Your task to perform on an android device: set an alarm Image 0: 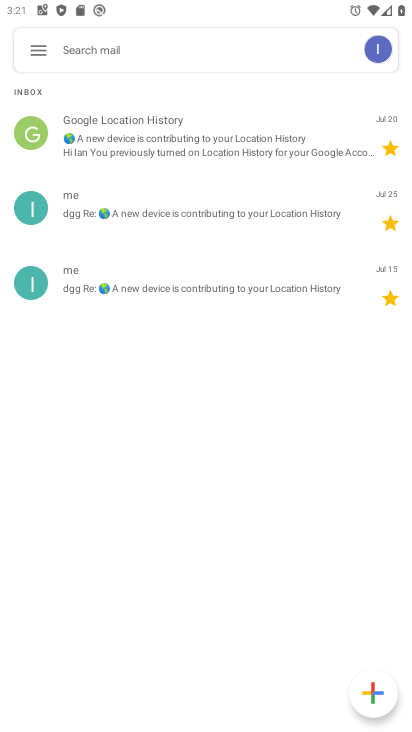
Step 0: press home button
Your task to perform on an android device: set an alarm Image 1: 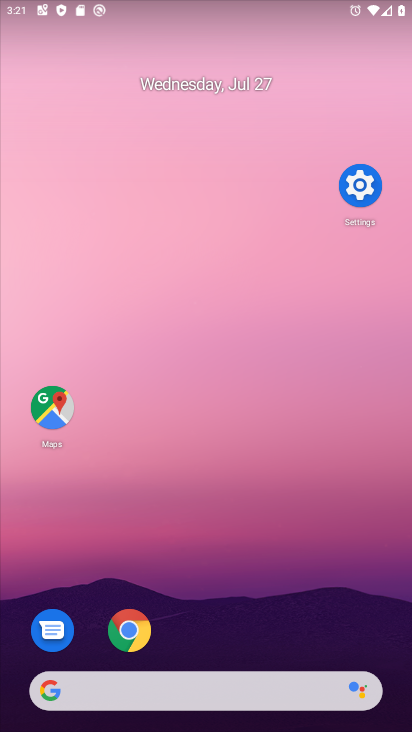
Step 1: drag from (252, 605) to (199, 66)
Your task to perform on an android device: set an alarm Image 2: 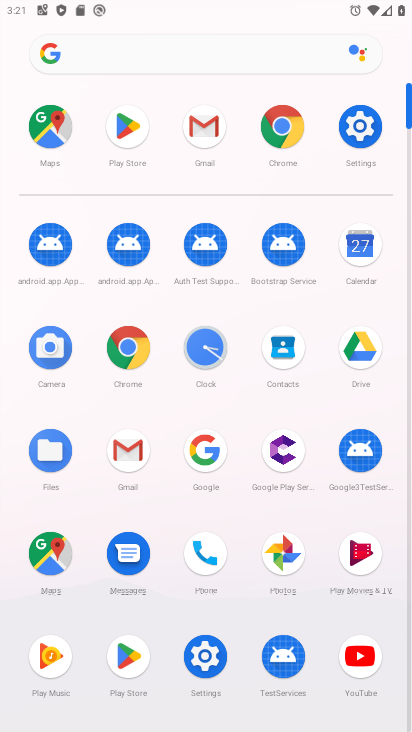
Step 2: click (211, 352)
Your task to perform on an android device: set an alarm Image 3: 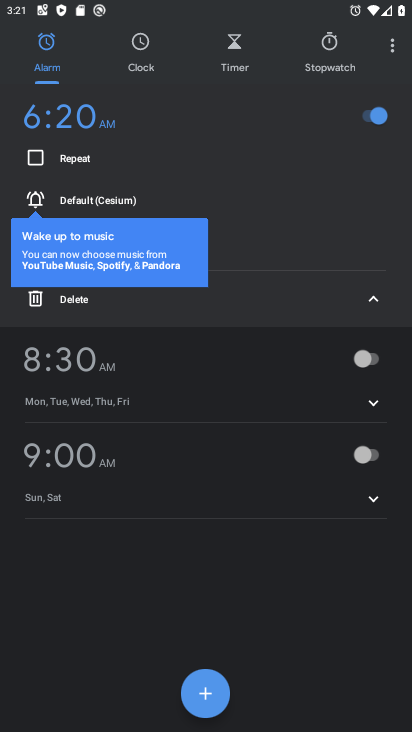
Step 3: click (182, 673)
Your task to perform on an android device: set an alarm Image 4: 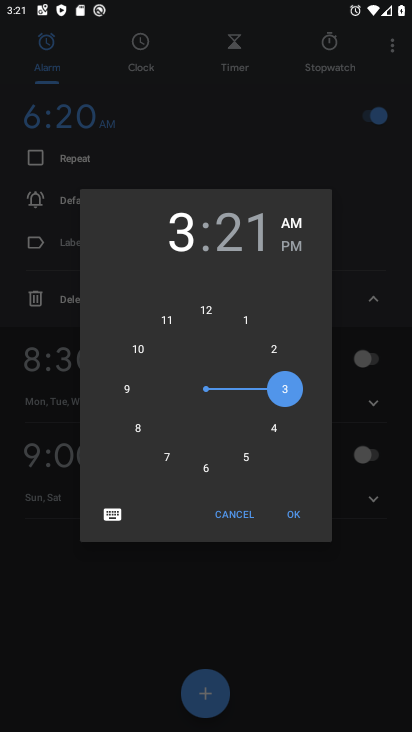
Step 4: click (186, 679)
Your task to perform on an android device: set an alarm Image 5: 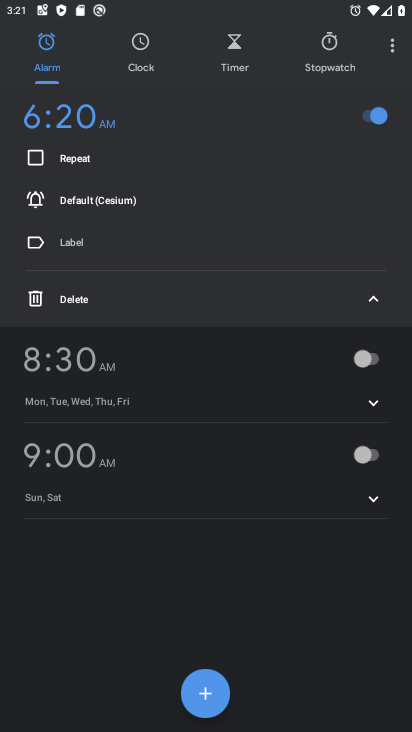
Step 5: click (212, 693)
Your task to perform on an android device: set an alarm Image 6: 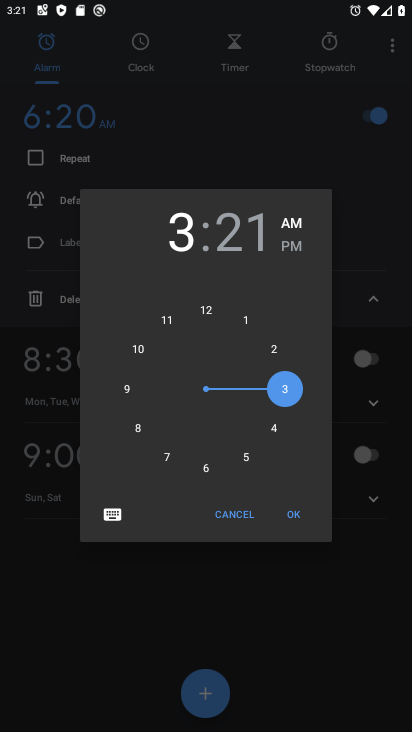
Step 6: click (129, 386)
Your task to perform on an android device: set an alarm Image 7: 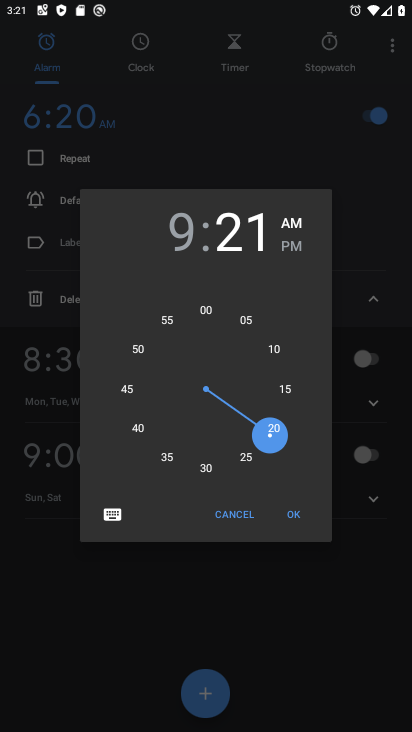
Step 7: click (291, 513)
Your task to perform on an android device: set an alarm Image 8: 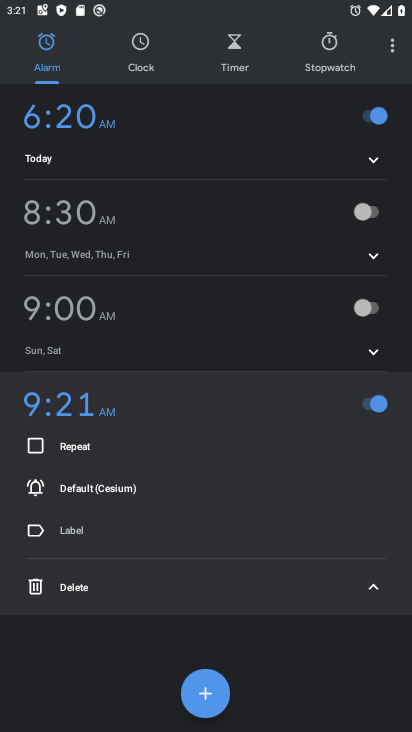
Step 8: task complete